Your task to perform on an android device: Open sound settings Image 0: 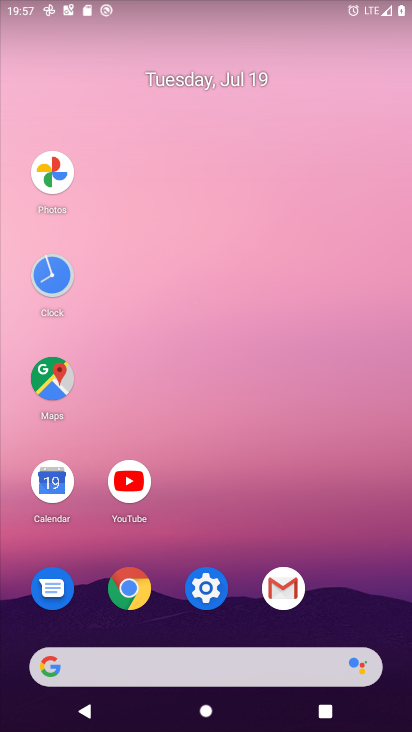
Step 0: click (202, 596)
Your task to perform on an android device: Open sound settings Image 1: 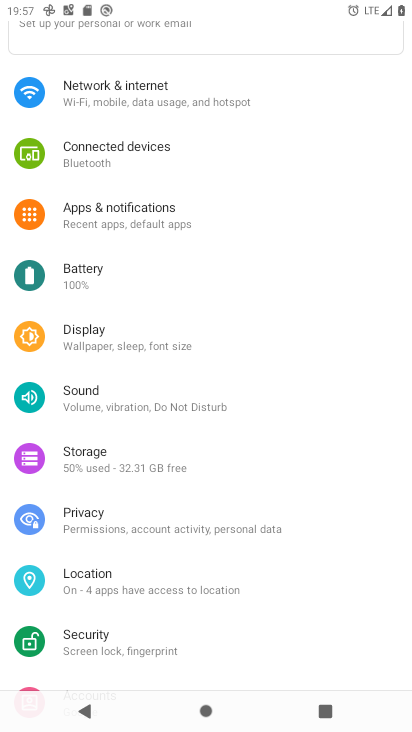
Step 1: click (88, 393)
Your task to perform on an android device: Open sound settings Image 2: 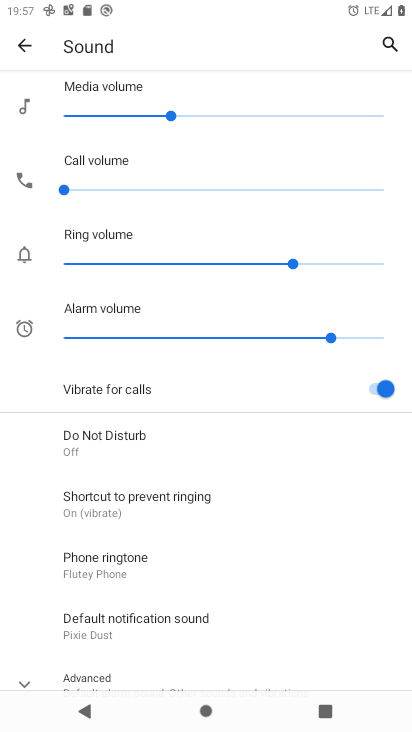
Step 2: task complete